Your task to perform on an android device: turn notification dots on Image 0: 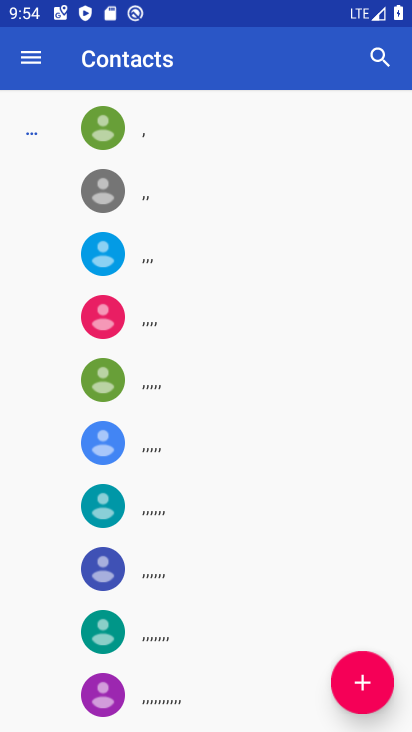
Step 0: press home button
Your task to perform on an android device: turn notification dots on Image 1: 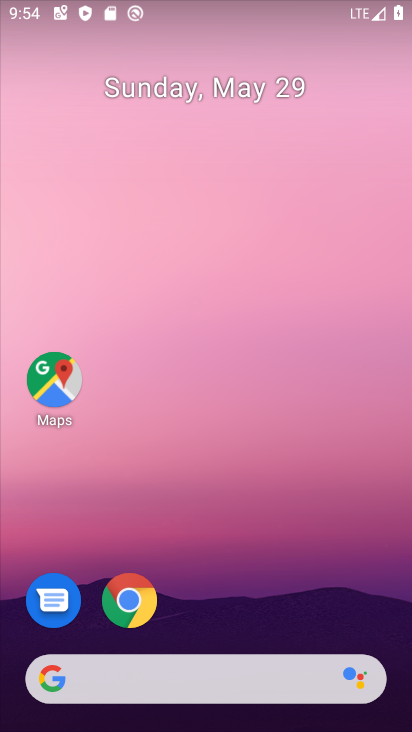
Step 1: drag from (228, 623) to (288, 60)
Your task to perform on an android device: turn notification dots on Image 2: 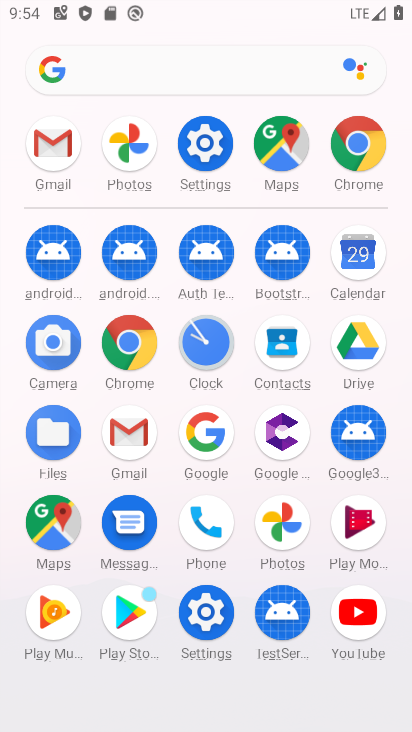
Step 2: click (205, 605)
Your task to perform on an android device: turn notification dots on Image 3: 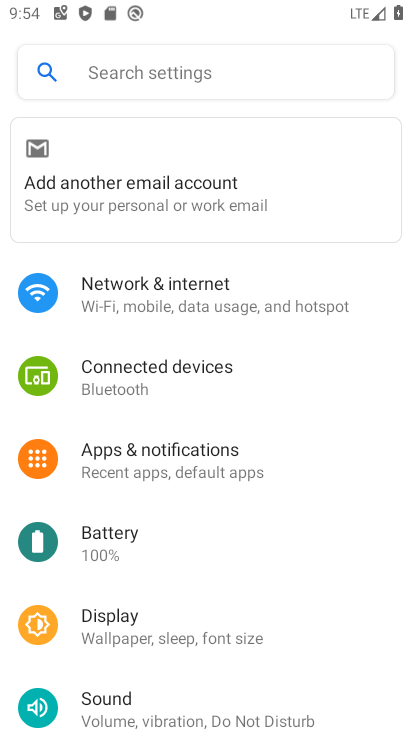
Step 3: click (217, 454)
Your task to perform on an android device: turn notification dots on Image 4: 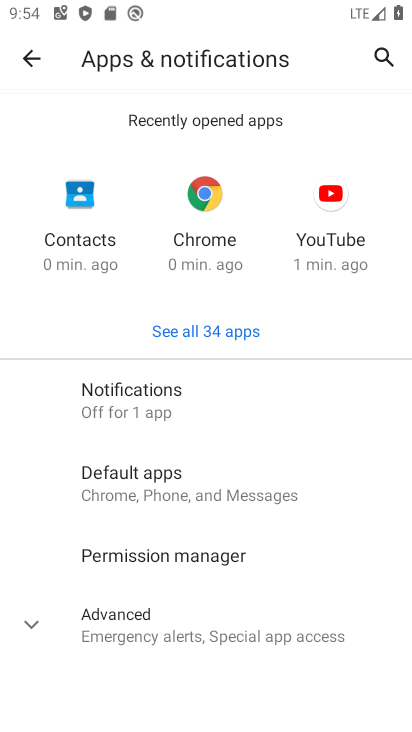
Step 4: click (156, 410)
Your task to perform on an android device: turn notification dots on Image 5: 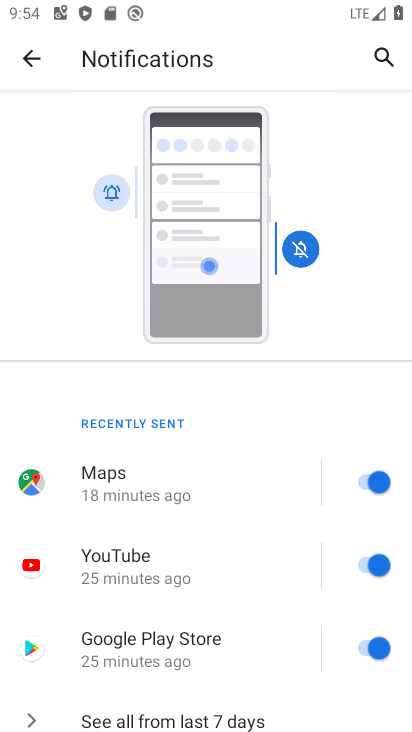
Step 5: drag from (203, 642) to (340, 134)
Your task to perform on an android device: turn notification dots on Image 6: 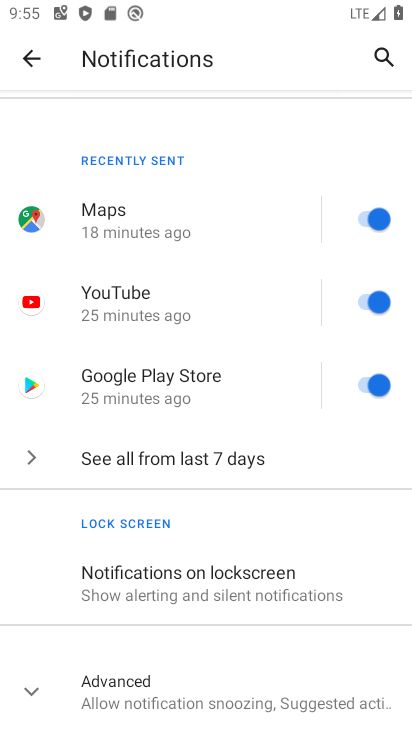
Step 6: click (164, 708)
Your task to perform on an android device: turn notification dots on Image 7: 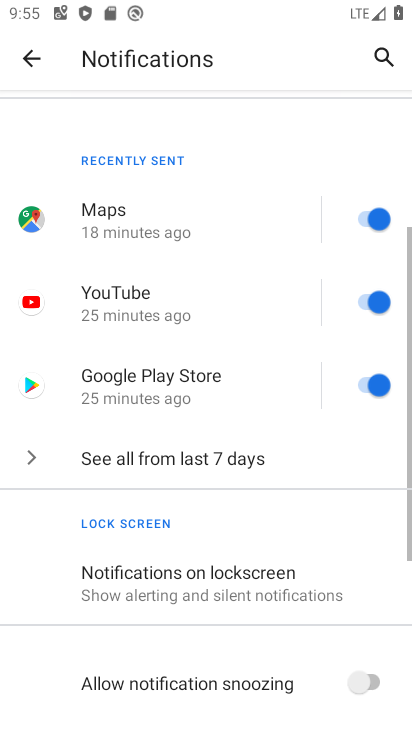
Step 7: task complete